Your task to perform on an android device: delete the emails in spam in the gmail app Image 0: 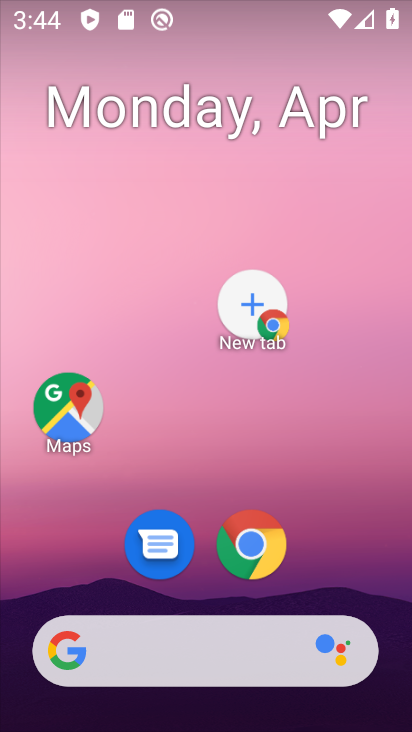
Step 0: drag from (322, 574) to (336, 15)
Your task to perform on an android device: delete the emails in spam in the gmail app Image 1: 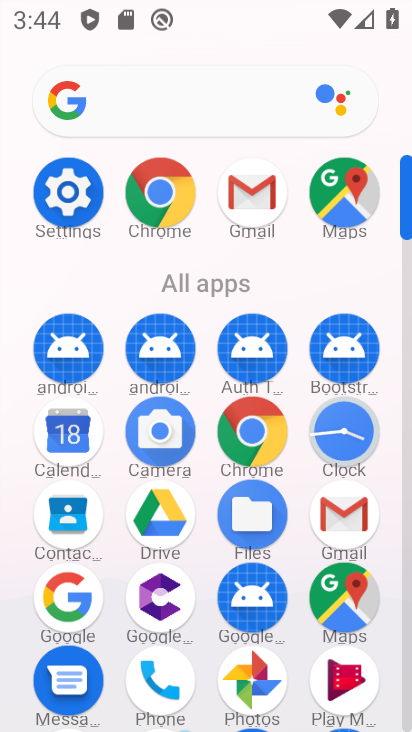
Step 1: click (361, 516)
Your task to perform on an android device: delete the emails in spam in the gmail app Image 2: 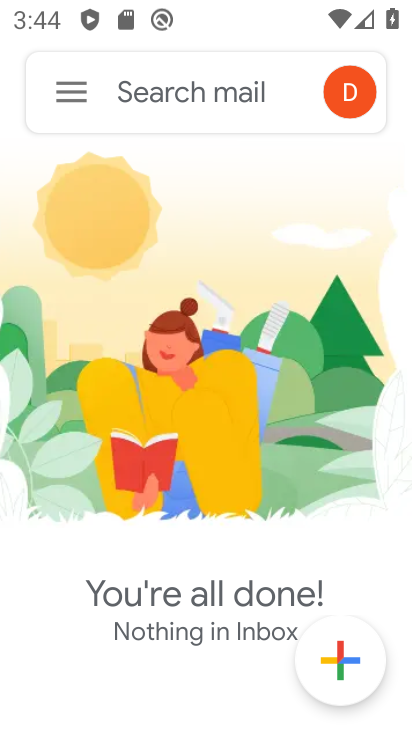
Step 2: click (75, 84)
Your task to perform on an android device: delete the emails in spam in the gmail app Image 3: 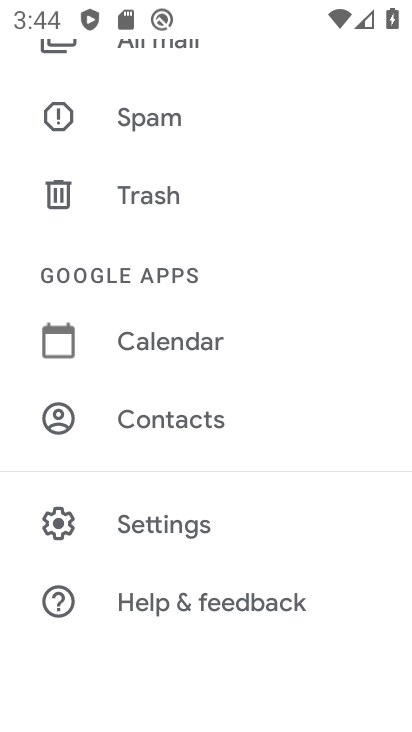
Step 3: drag from (173, 243) to (226, 679)
Your task to perform on an android device: delete the emails in spam in the gmail app Image 4: 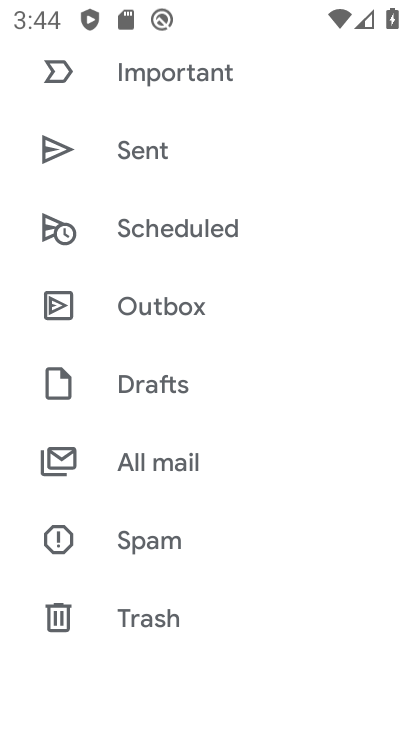
Step 4: click (172, 551)
Your task to perform on an android device: delete the emails in spam in the gmail app Image 5: 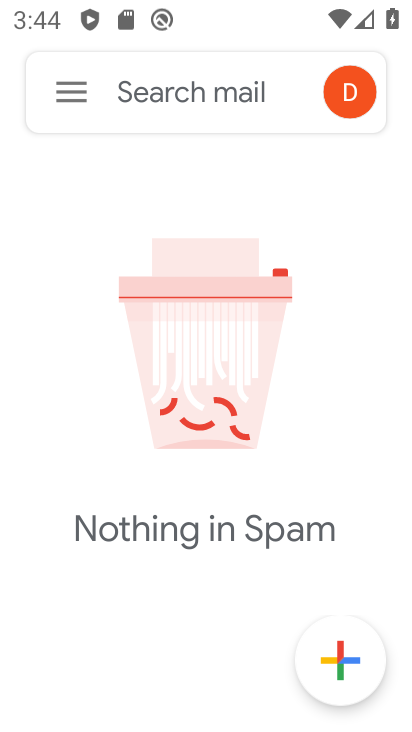
Step 5: task complete